Your task to perform on an android device: show emergency info Image 0: 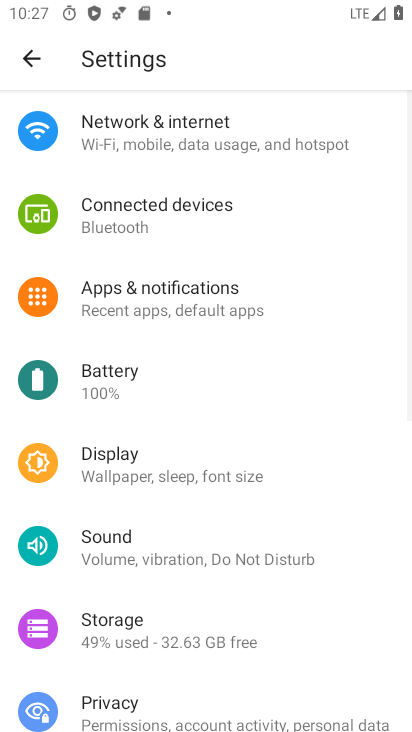
Step 0: drag from (193, 592) to (191, 15)
Your task to perform on an android device: show emergency info Image 1: 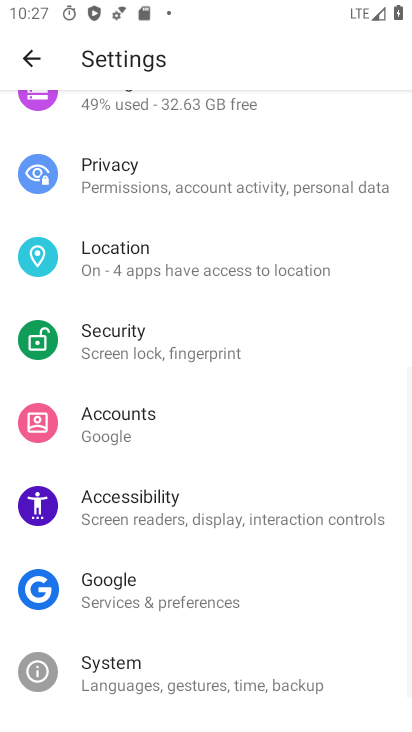
Step 1: drag from (153, 703) to (165, 192)
Your task to perform on an android device: show emergency info Image 2: 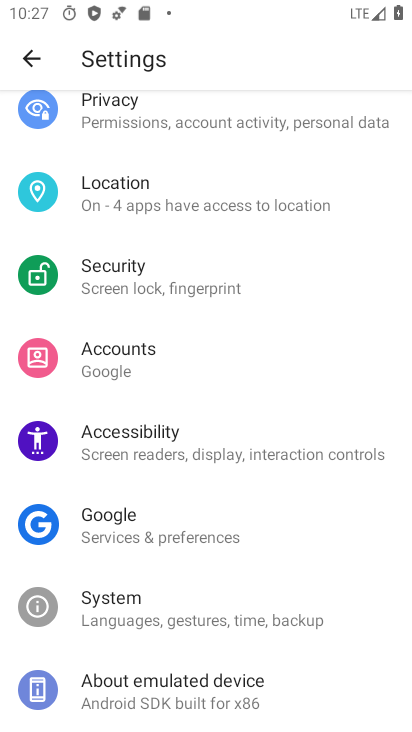
Step 2: click (141, 701)
Your task to perform on an android device: show emergency info Image 3: 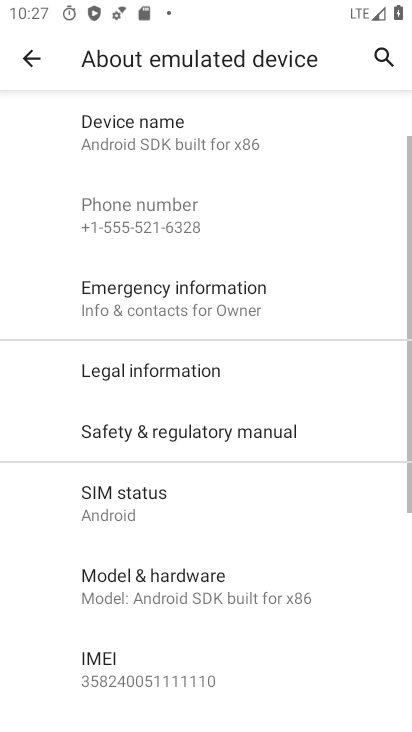
Step 3: click (151, 280)
Your task to perform on an android device: show emergency info Image 4: 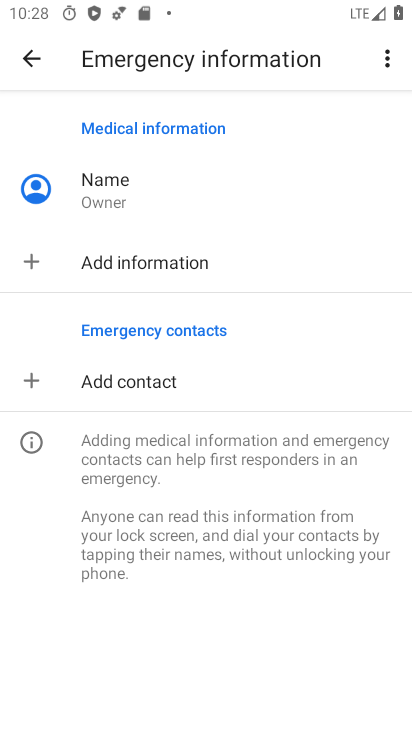
Step 4: task complete